Your task to perform on an android device: refresh tabs in the chrome app Image 0: 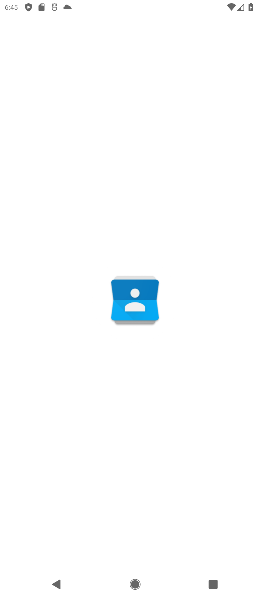
Step 0: press home button
Your task to perform on an android device: refresh tabs in the chrome app Image 1: 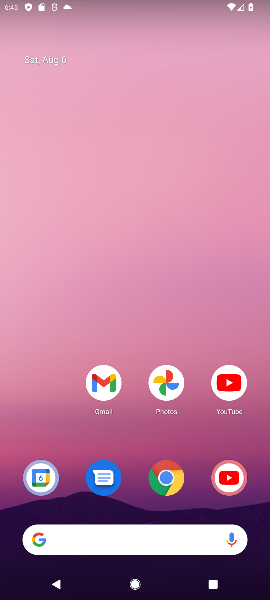
Step 1: click (173, 478)
Your task to perform on an android device: refresh tabs in the chrome app Image 2: 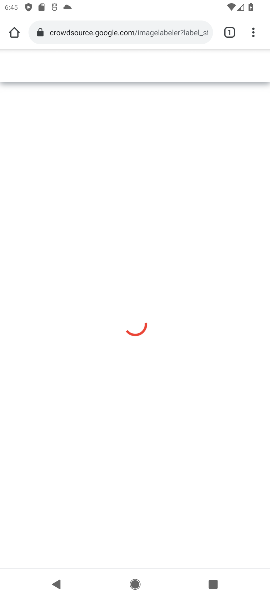
Step 2: click (246, 28)
Your task to perform on an android device: refresh tabs in the chrome app Image 3: 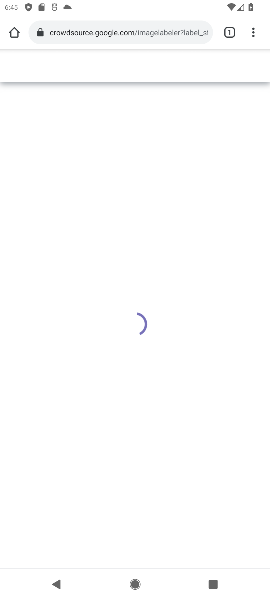
Step 3: click (252, 28)
Your task to perform on an android device: refresh tabs in the chrome app Image 4: 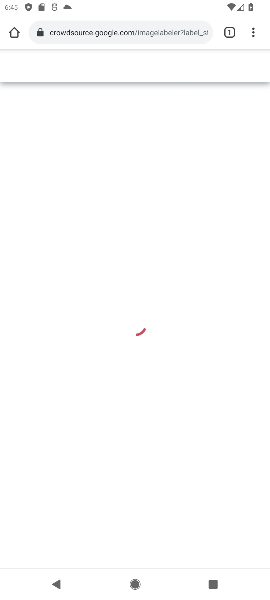
Step 4: click (252, 34)
Your task to perform on an android device: refresh tabs in the chrome app Image 5: 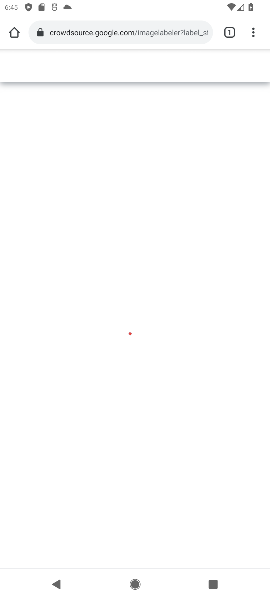
Step 5: click (247, 27)
Your task to perform on an android device: refresh tabs in the chrome app Image 6: 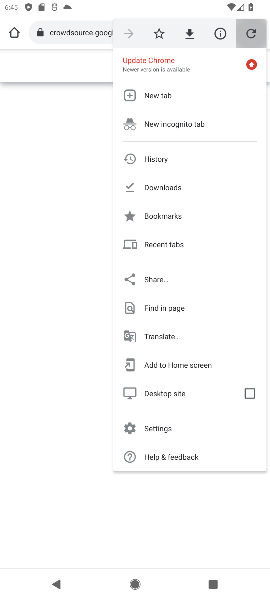
Step 6: click (251, 31)
Your task to perform on an android device: refresh tabs in the chrome app Image 7: 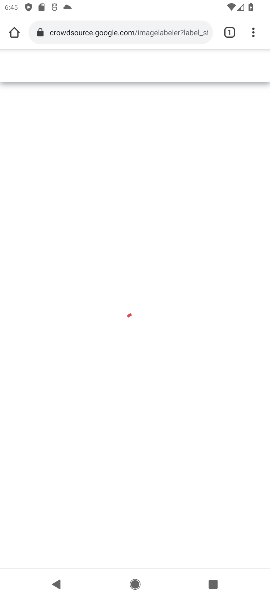
Step 7: task complete